Your task to perform on an android device: open chrome and create a bookmark for the current page Image 0: 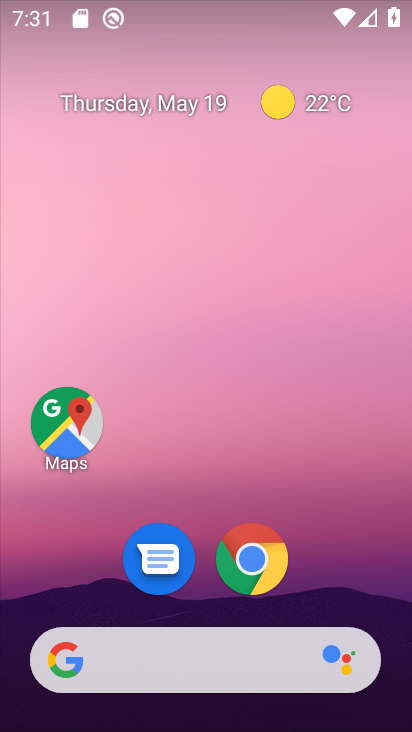
Step 0: click (234, 558)
Your task to perform on an android device: open chrome and create a bookmark for the current page Image 1: 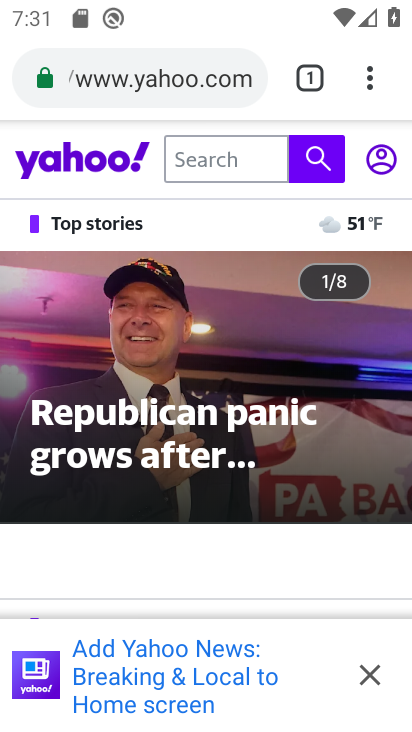
Step 1: click (359, 82)
Your task to perform on an android device: open chrome and create a bookmark for the current page Image 2: 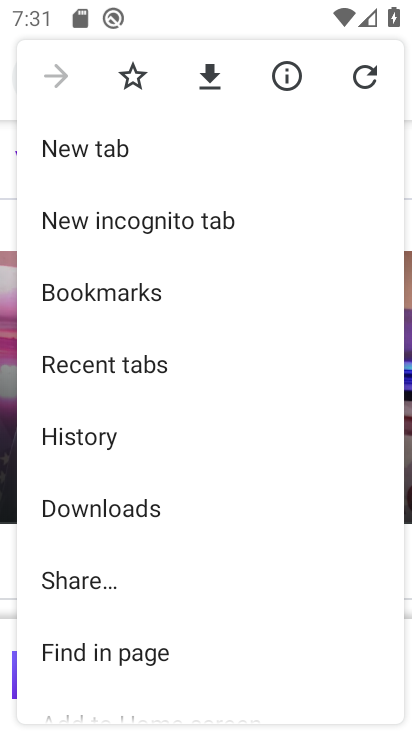
Step 2: click (149, 72)
Your task to perform on an android device: open chrome and create a bookmark for the current page Image 3: 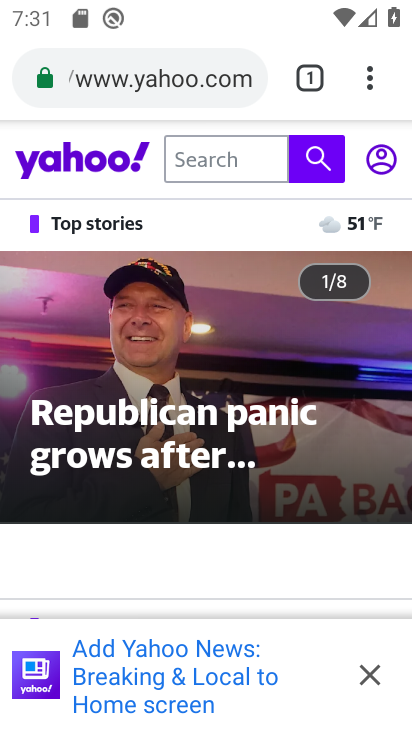
Step 3: task complete